Your task to perform on an android device: Open Chrome and go to settings Image 0: 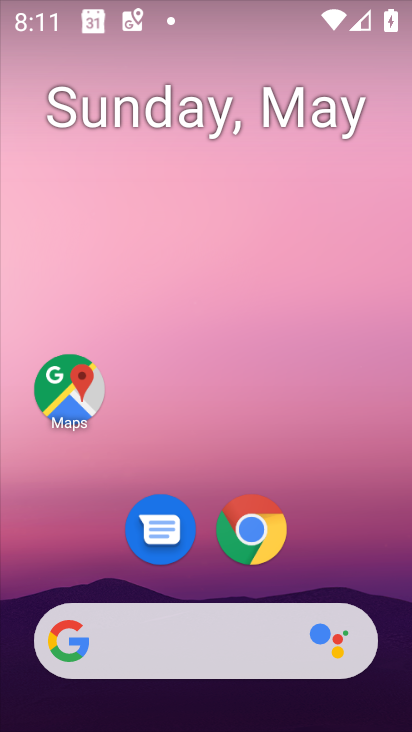
Step 0: task complete